Your task to perform on an android device: Open Reddit.com Image 0: 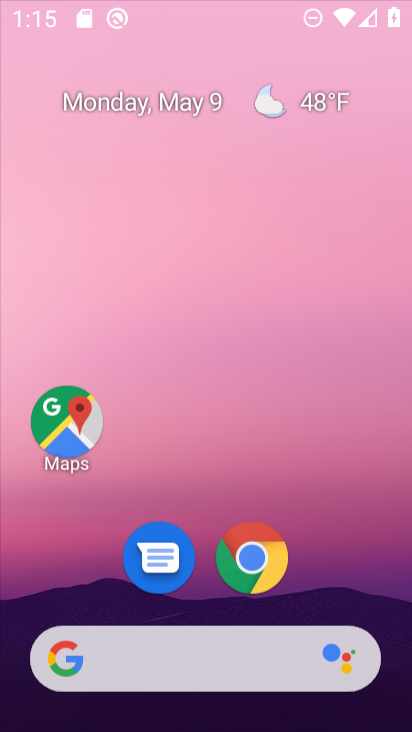
Step 0: click (242, 279)
Your task to perform on an android device: Open Reddit.com Image 1: 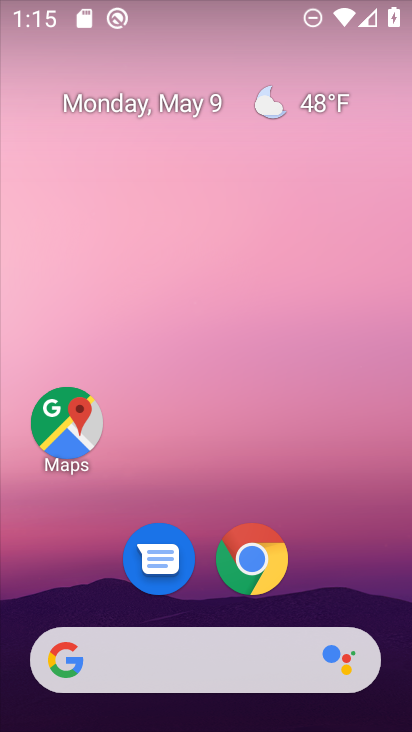
Step 1: drag from (191, 611) to (250, 286)
Your task to perform on an android device: Open Reddit.com Image 2: 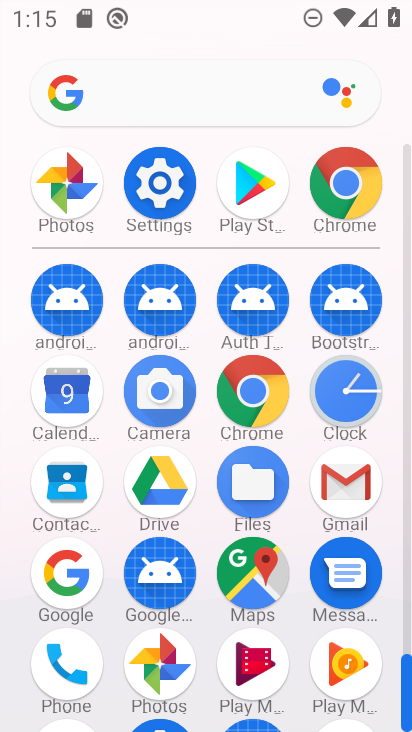
Step 2: drag from (197, 643) to (237, 276)
Your task to perform on an android device: Open Reddit.com Image 3: 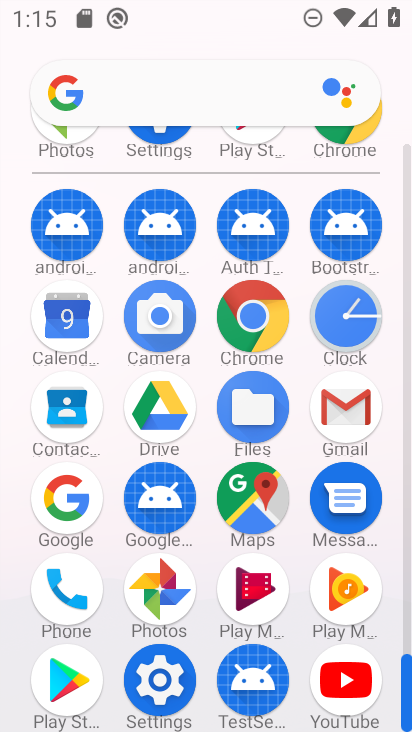
Step 3: drag from (209, 653) to (234, 369)
Your task to perform on an android device: Open Reddit.com Image 4: 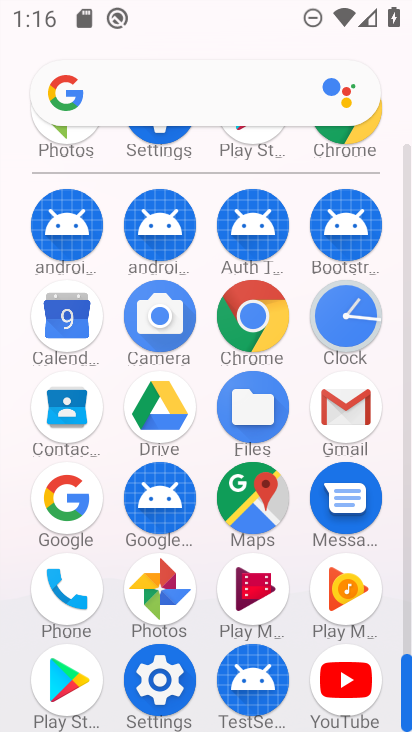
Step 4: click (134, 103)
Your task to perform on an android device: Open Reddit.com Image 5: 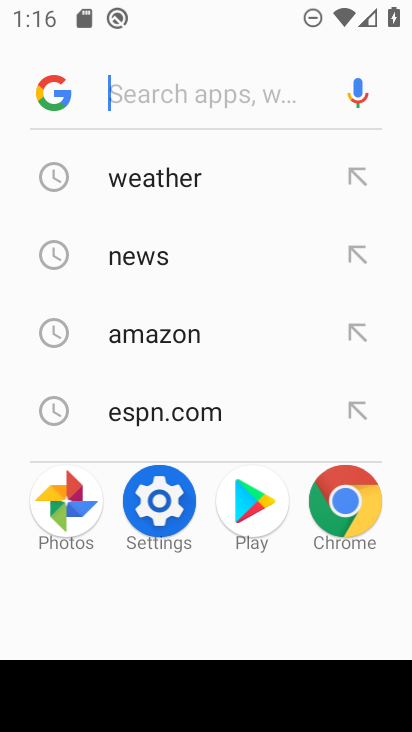
Step 5: drag from (239, 395) to (332, 68)
Your task to perform on an android device: Open Reddit.com Image 6: 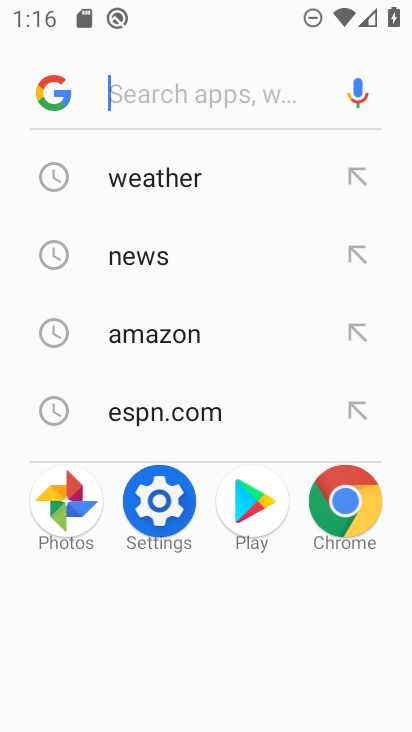
Step 6: type "reddit"
Your task to perform on an android device: Open Reddit.com Image 7: 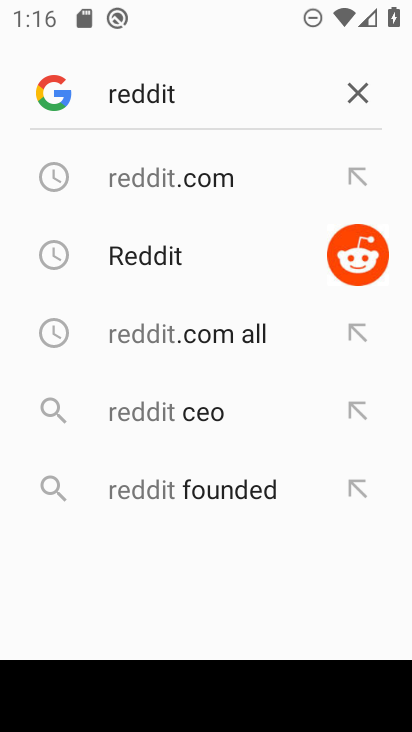
Step 7: click (187, 179)
Your task to perform on an android device: Open Reddit.com Image 8: 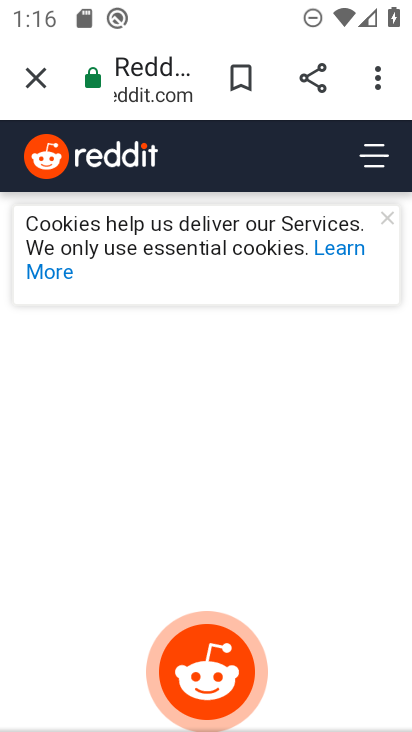
Step 8: task complete